Your task to perform on an android device: Open Yahoo.com Image 0: 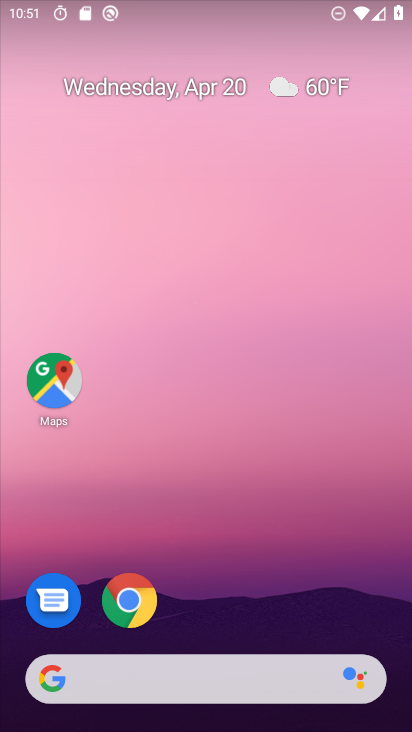
Step 0: click (131, 602)
Your task to perform on an android device: Open Yahoo.com Image 1: 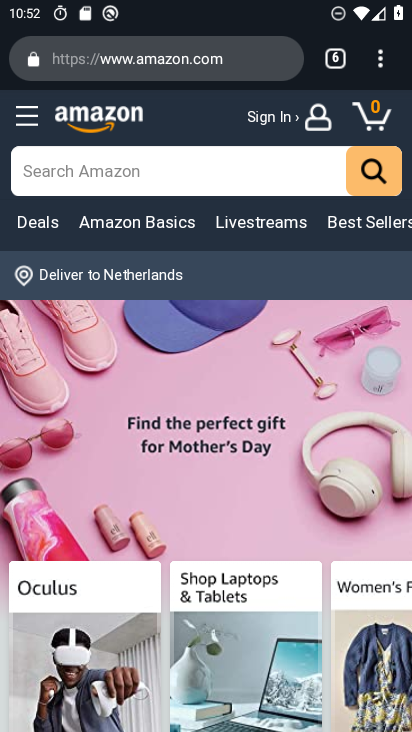
Step 1: click (337, 61)
Your task to perform on an android device: Open Yahoo.com Image 2: 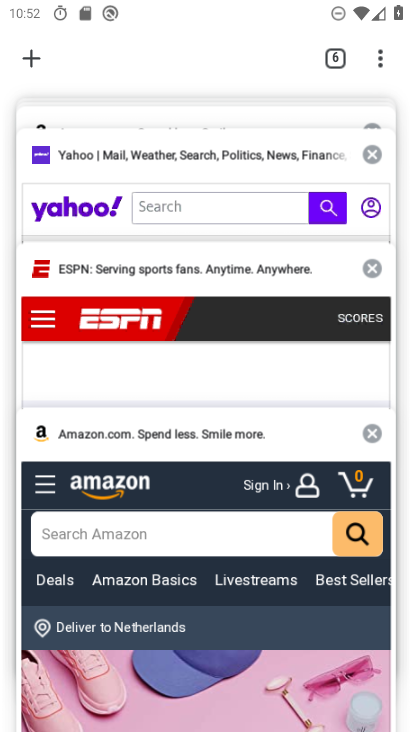
Step 2: click (33, 71)
Your task to perform on an android device: Open Yahoo.com Image 3: 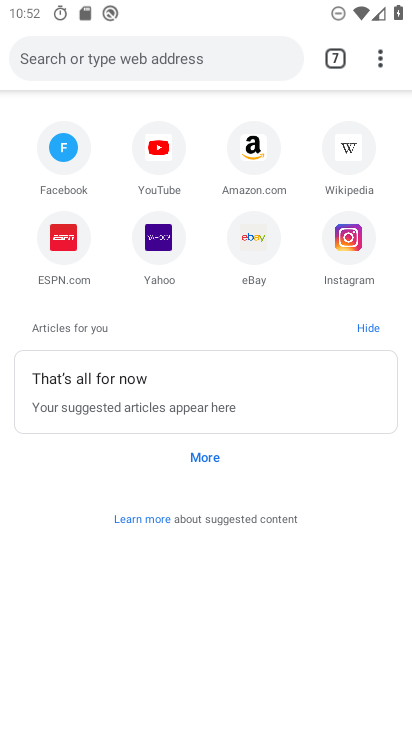
Step 3: click (167, 234)
Your task to perform on an android device: Open Yahoo.com Image 4: 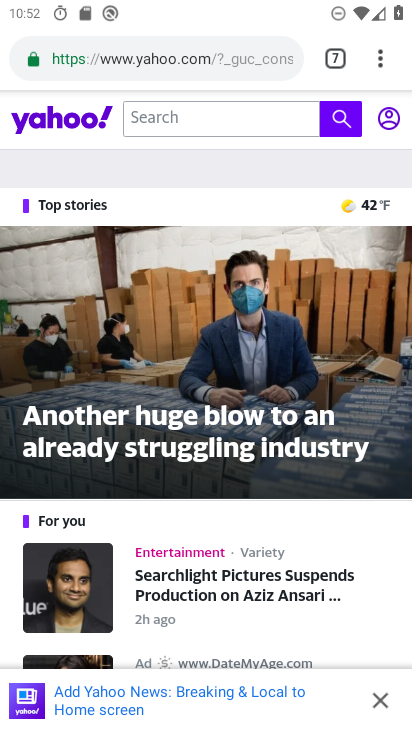
Step 4: task complete